Your task to perform on an android device: turn off improve location accuracy Image 0: 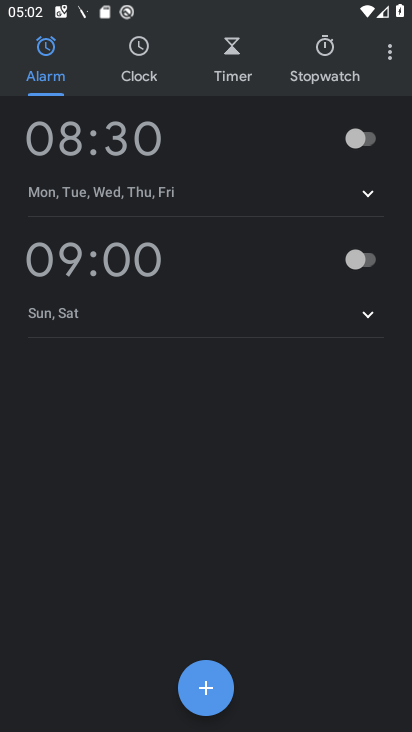
Step 0: press home button
Your task to perform on an android device: turn off improve location accuracy Image 1: 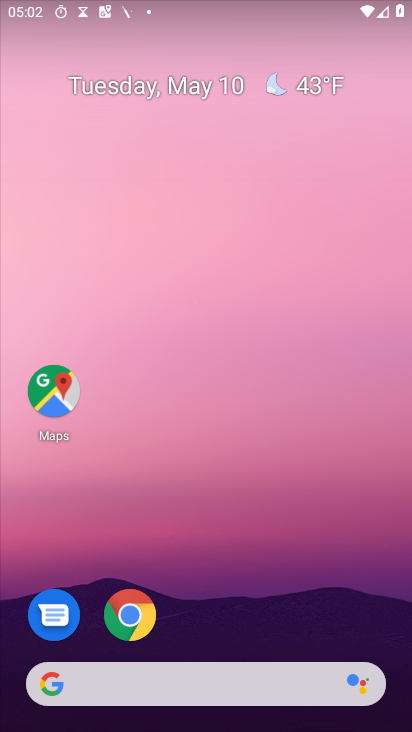
Step 1: drag from (311, 604) to (373, 23)
Your task to perform on an android device: turn off improve location accuracy Image 2: 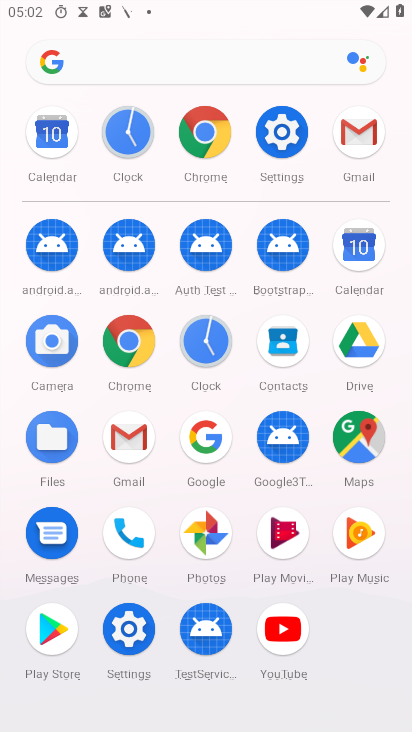
Step 2: click (299, 144)
Your task to perform on an android device: turn off improve location accuracy Image 3: 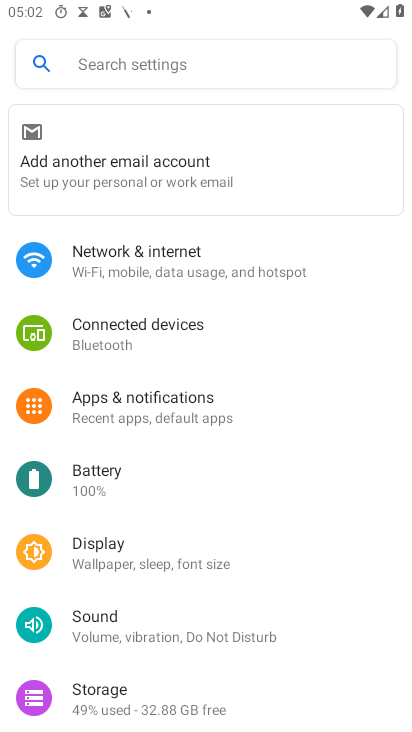
Step 3: drag from (233, 663) to (251, 339)
Your task to perform on an android device: turn off improve location accuracy Image 4: 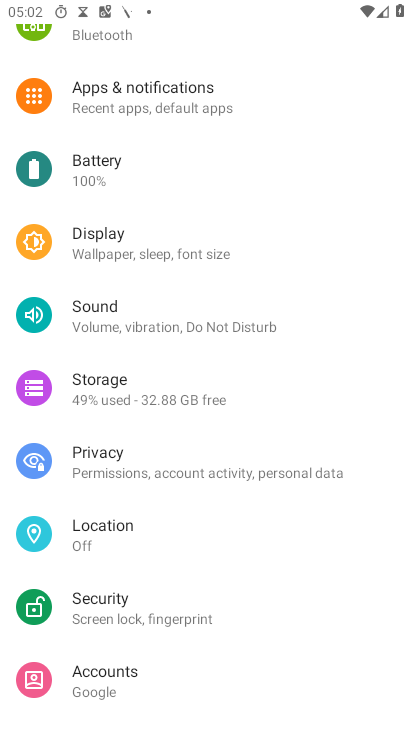
Step 4: click (125, 520)
Your task to perform on an android device: turn off improve location accuracy Image 5: 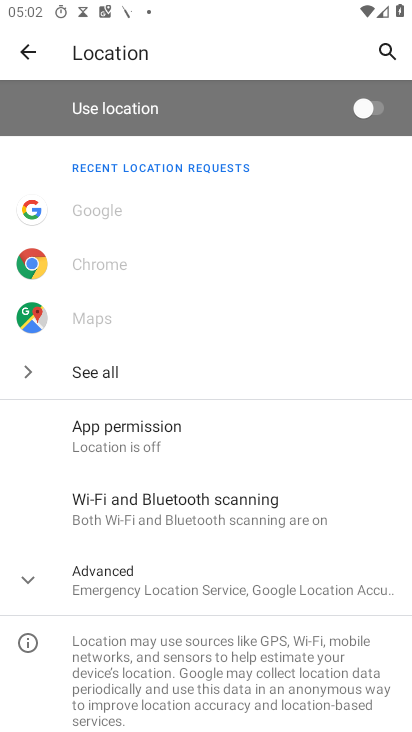
Step 5: click (238, 577)
Your task to perform on an android device: turn off improve location accuracy Image 6: 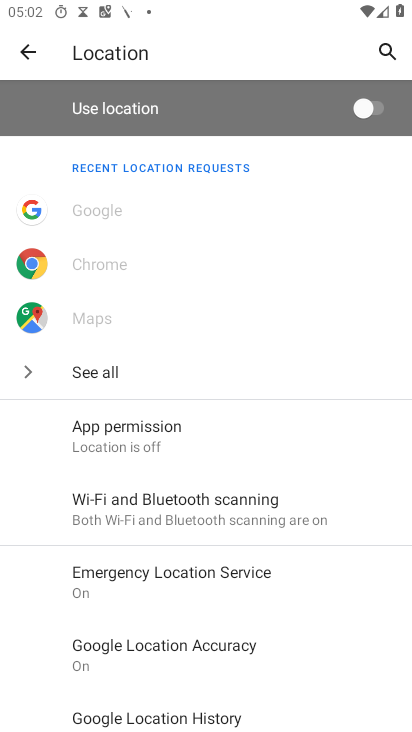
Step 6: click (177, 649)
Your task to perform on an android device: turn off improve location accuracy Image 7: 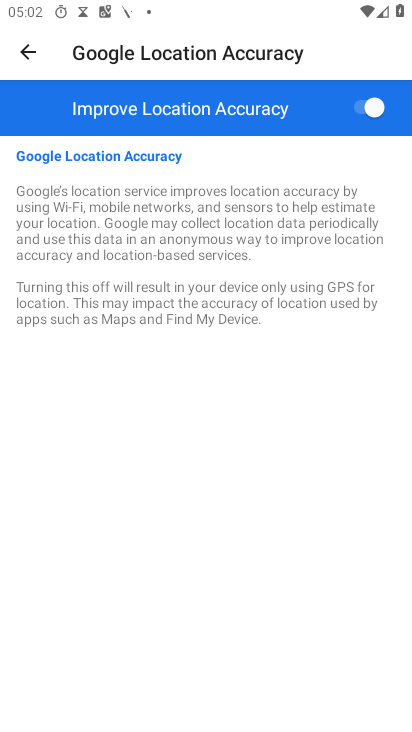
Step 7: task complete